Your task to perform on an android device: refresh tabs in the chrome app Image 0: 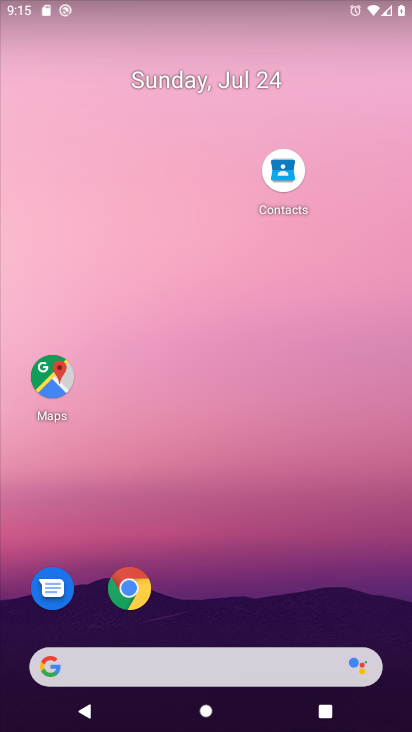
Step 0: press home button
Your task to perform on an android device: refresh tabs in the chrome app Image 1: 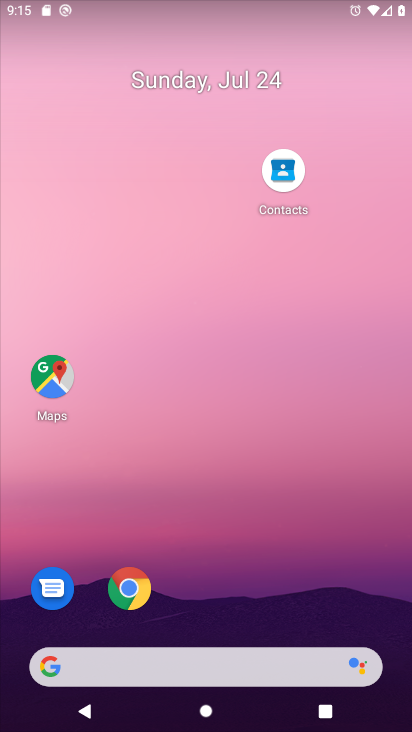
Step 1: click (128, 581)
Your task to perform on an android device: refresh tabs in the chrome app Image 2: 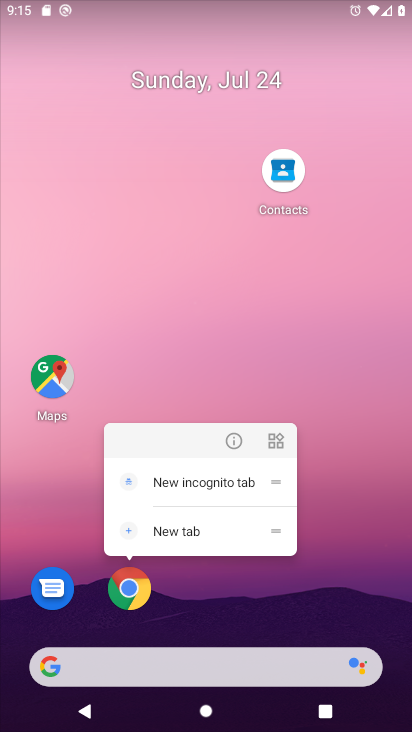
Step 2: click (121, 581)
Your task to perform on an android device: refresh tabs in the chrome app Image 3: 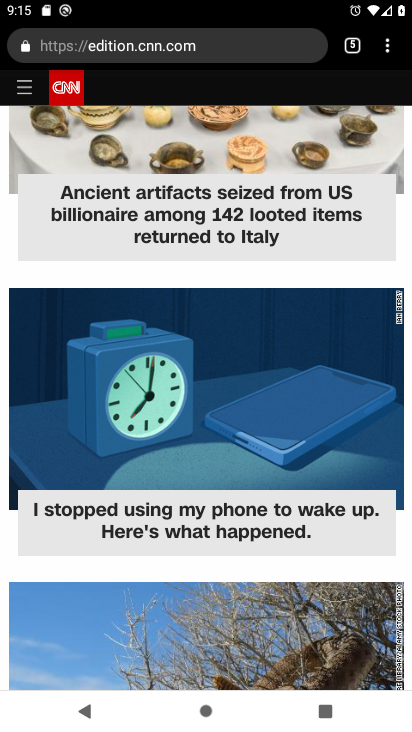
Step 3: click (383, 45)
Your task to perform on an android device: refresh tabs in the chrome app Image 4: 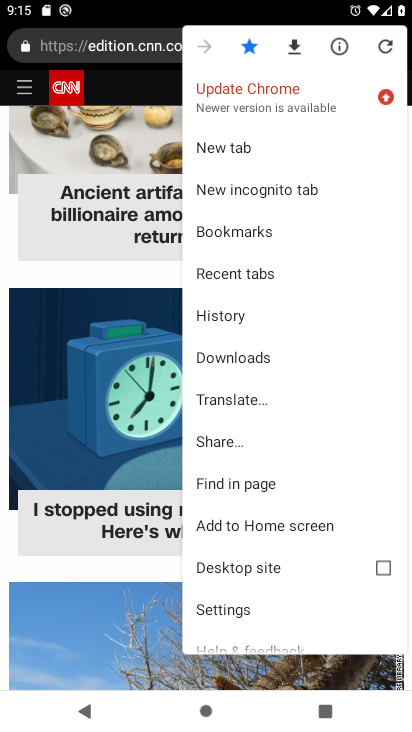
Step 4: click (385, 43)
Your task to perform on an android device: refresh tabs in the chrome app Image 5: 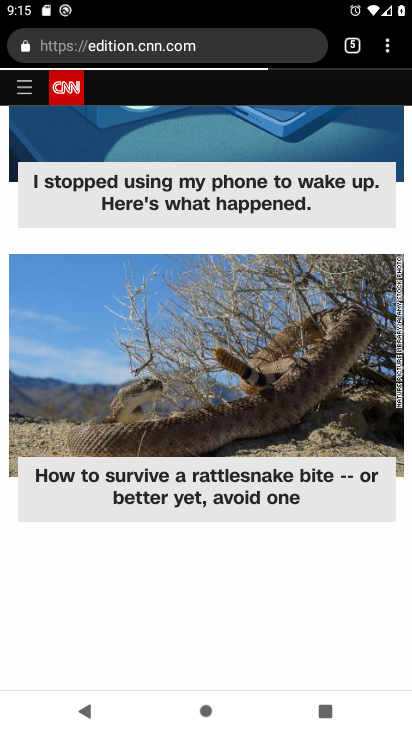
Step 5: task complete